Your task to perform on an android device: turn off data saver in the chrome app Image 0: 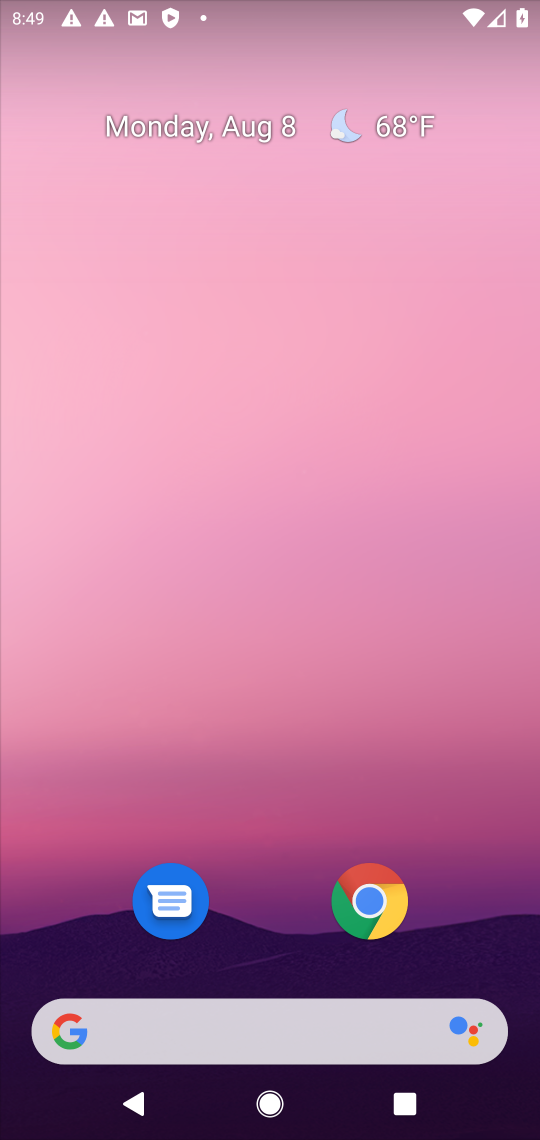
Step 0: click (354, 903)
Your task to perform on an android device: turn off data saver in the chrome app Image 1: 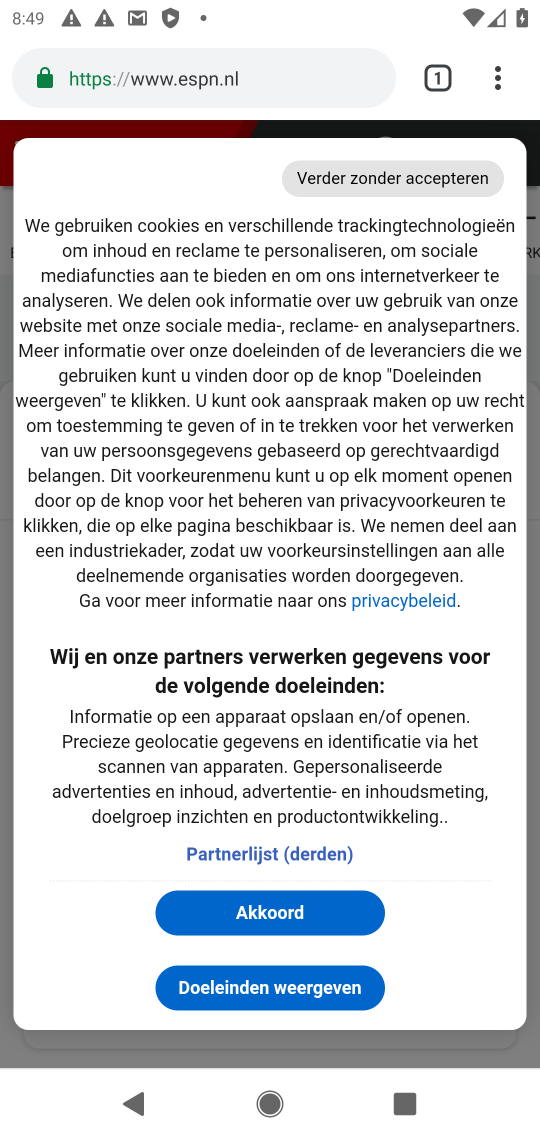
Step 1: click (163, 91)
Your task to perform on an android device: turn off data saver in the chrome app Image 2: 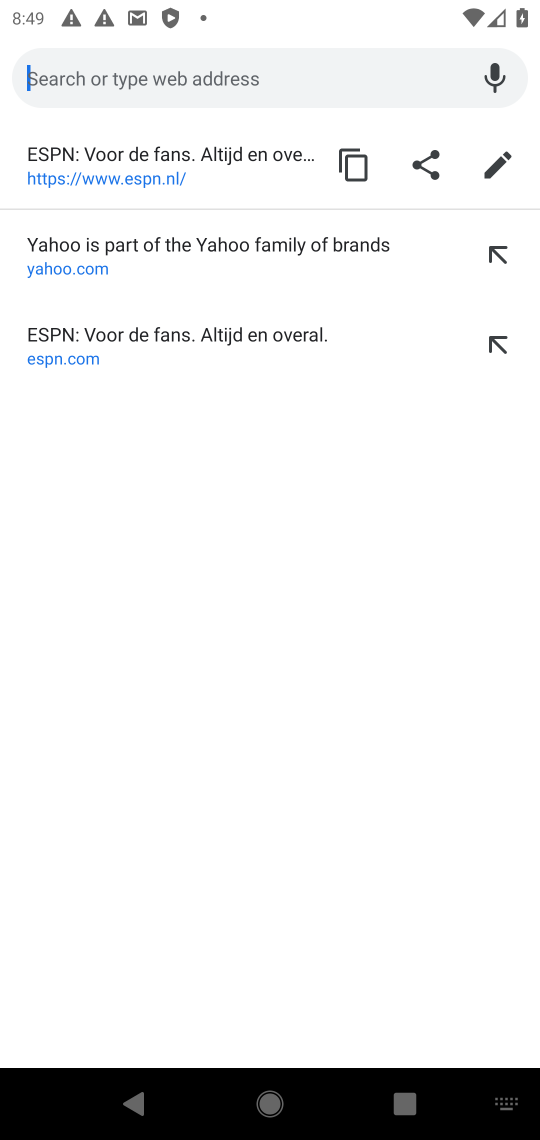
Step 2: press back button
Your task to perform on an android device: turn off data saver in the chrome app Image 3: 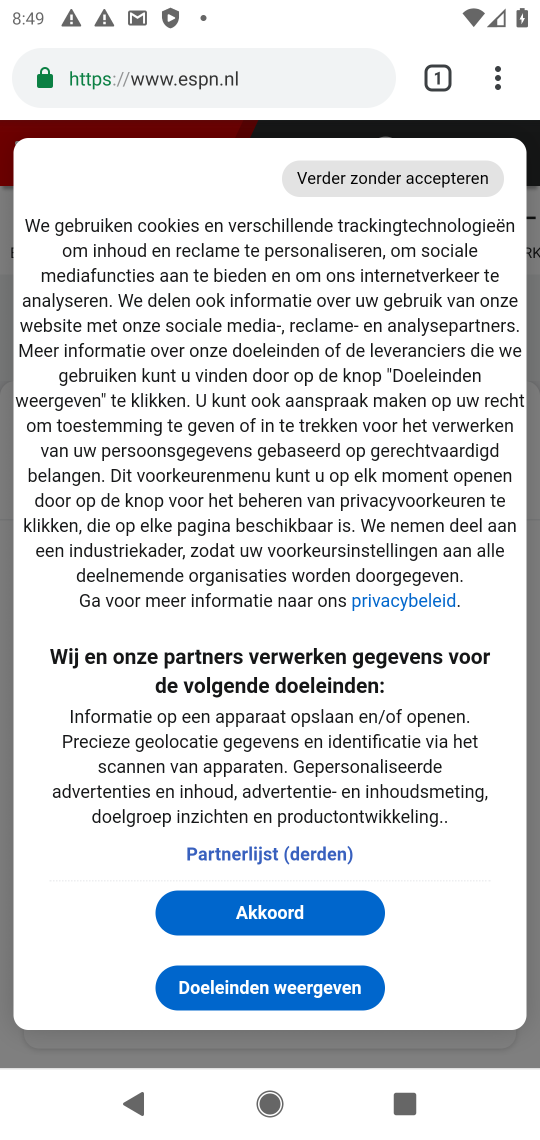
Step 3: click (489, 77)
Your task to perform on an android device: turn off data saver in the chrome app Image 4: 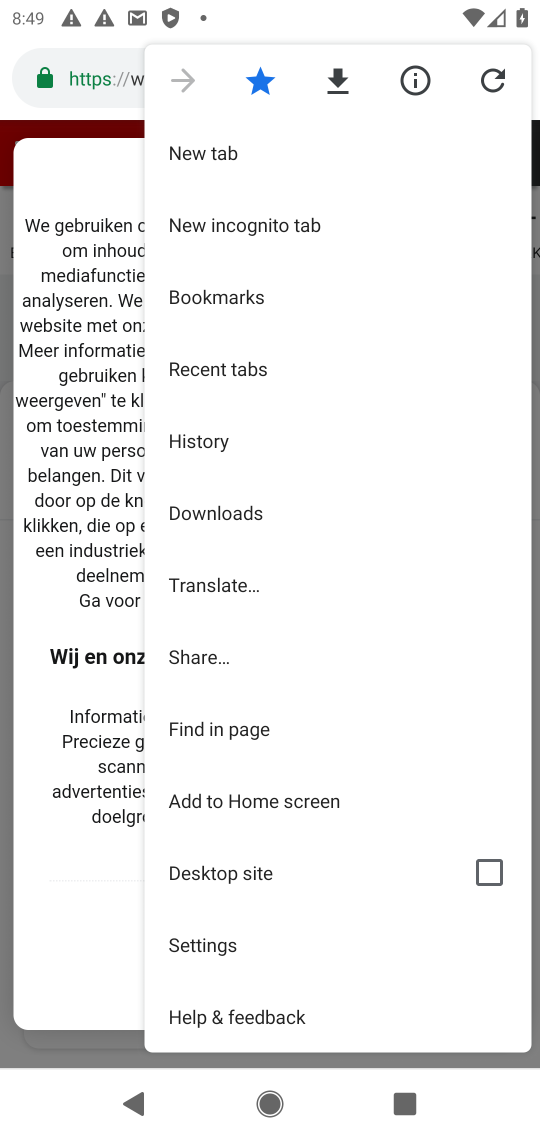
Step 4: click (212, 945)
Your task to perform on an android device: turn off data saver in the chrome app Image 5: 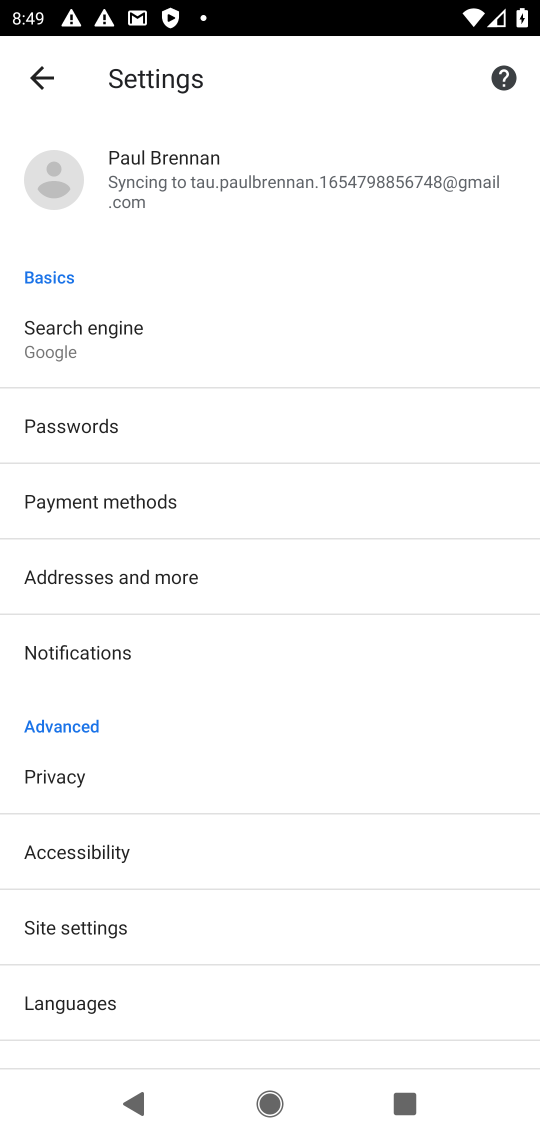
Step 5: click (85, 927)
Your task to perform on an android device: turn off data saver in the chrome app Image 6: 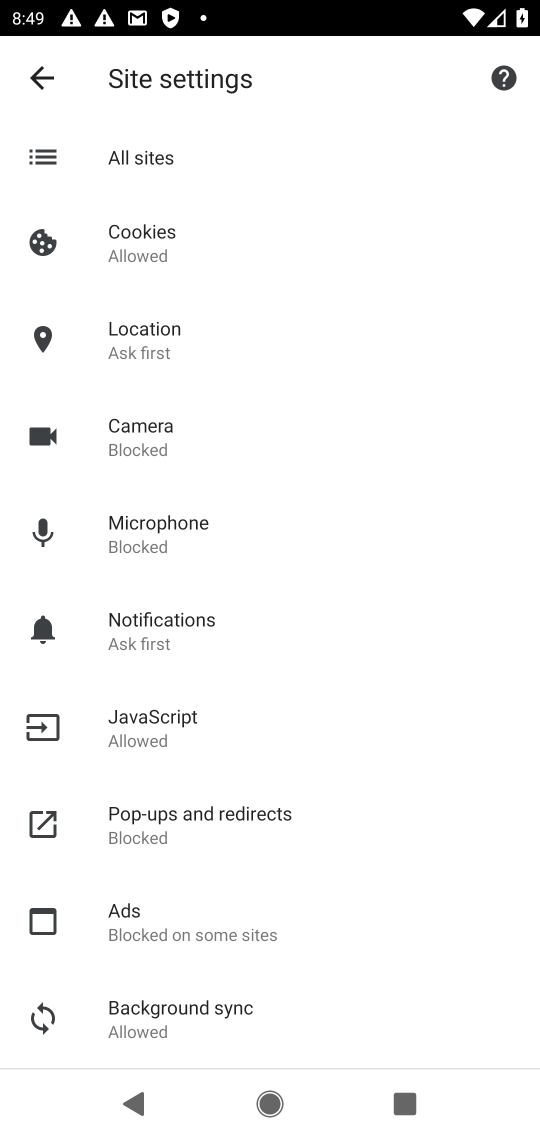
Step 6: press back button
Your task to perform on an android device: turn off data saver in the chrome app Image 7: 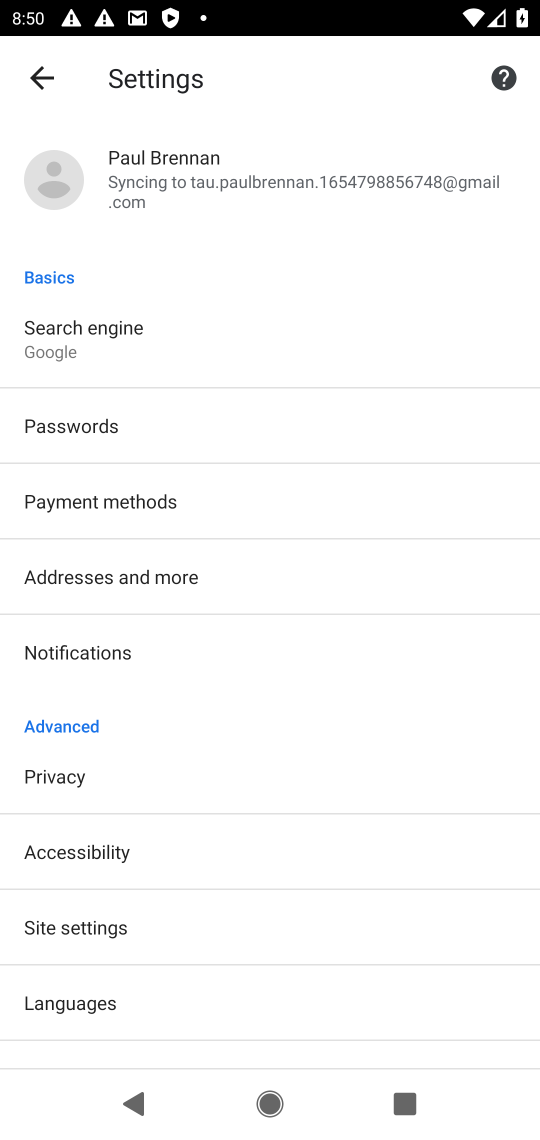
Step 7: click (252, 554)
Your task to perform on an android device: turn off data saver in the chrome app Image 8: 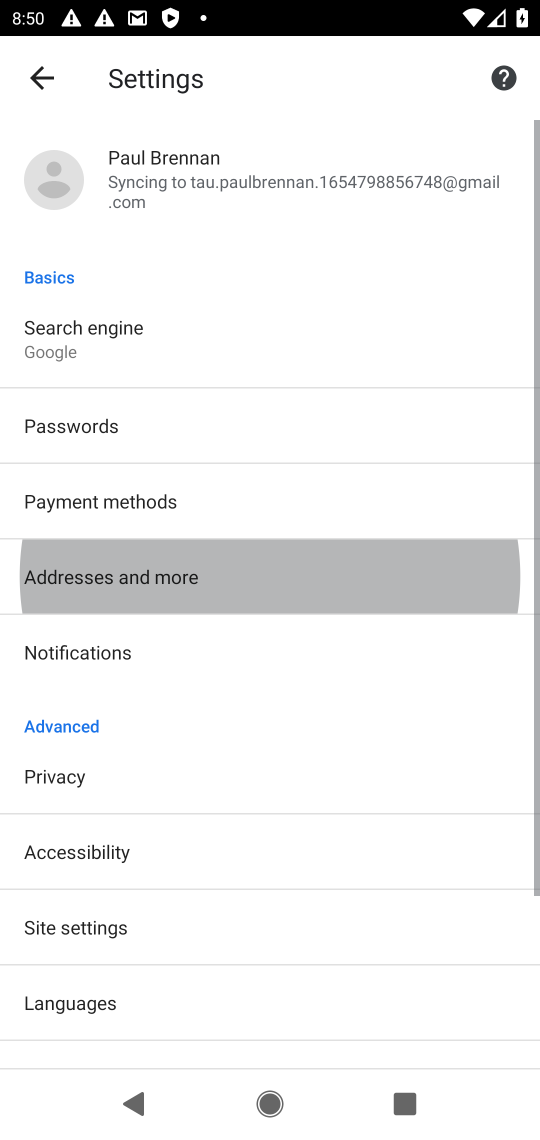
Step 8: drag from (129, 961) to (118, 531)
Your task to perform on an android device: turn off data saver in the chrome app Image 9: 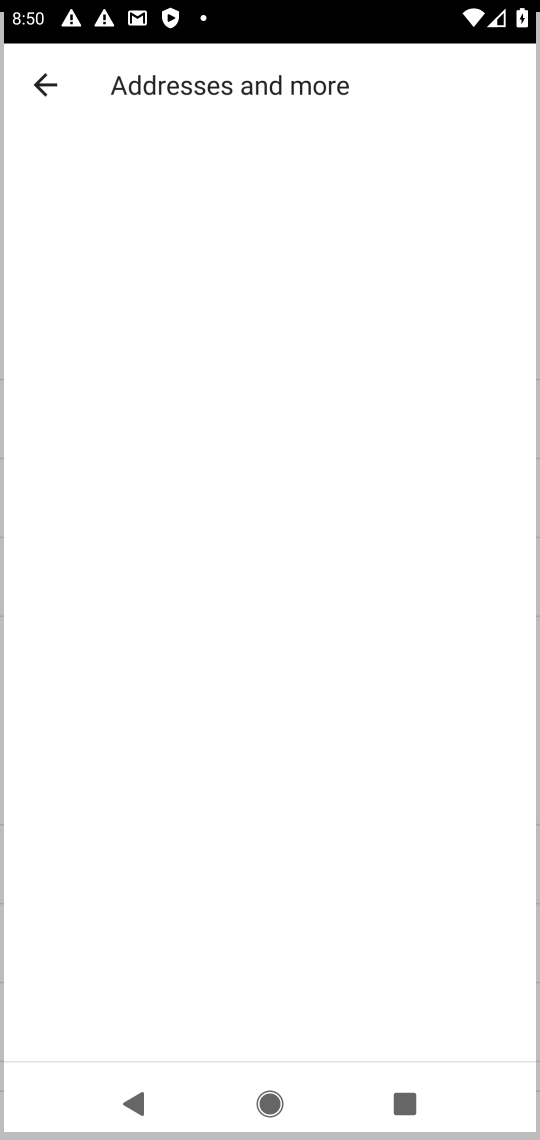
Step 9: click (251, 558)
Your task to perform on an android device: turn off data saver in the chrome app Image 10: 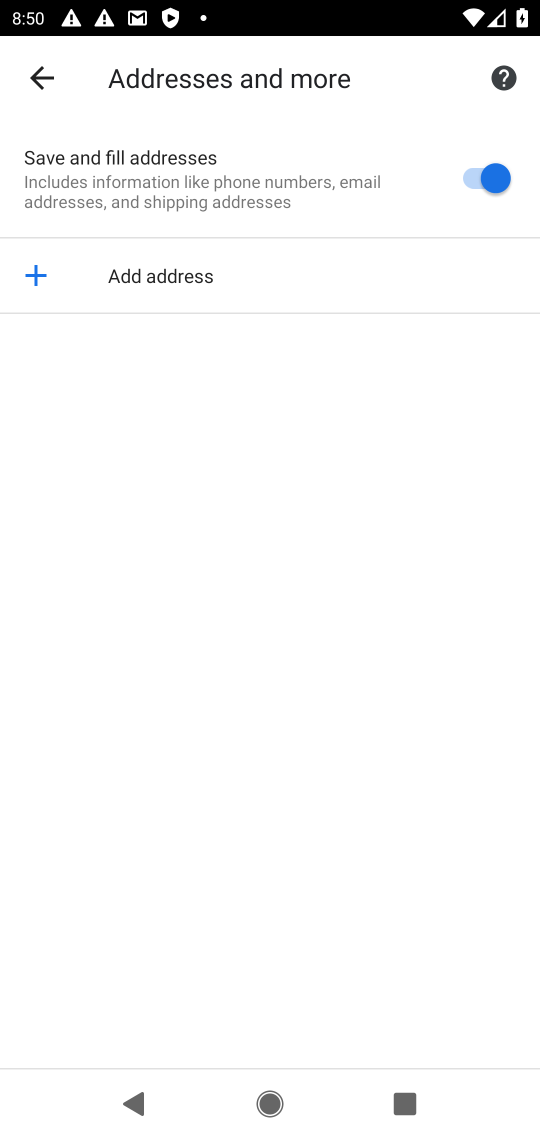
Step 10: press back button
Your task to perform on an android device: turn off data saver in the chrome app Image 11: 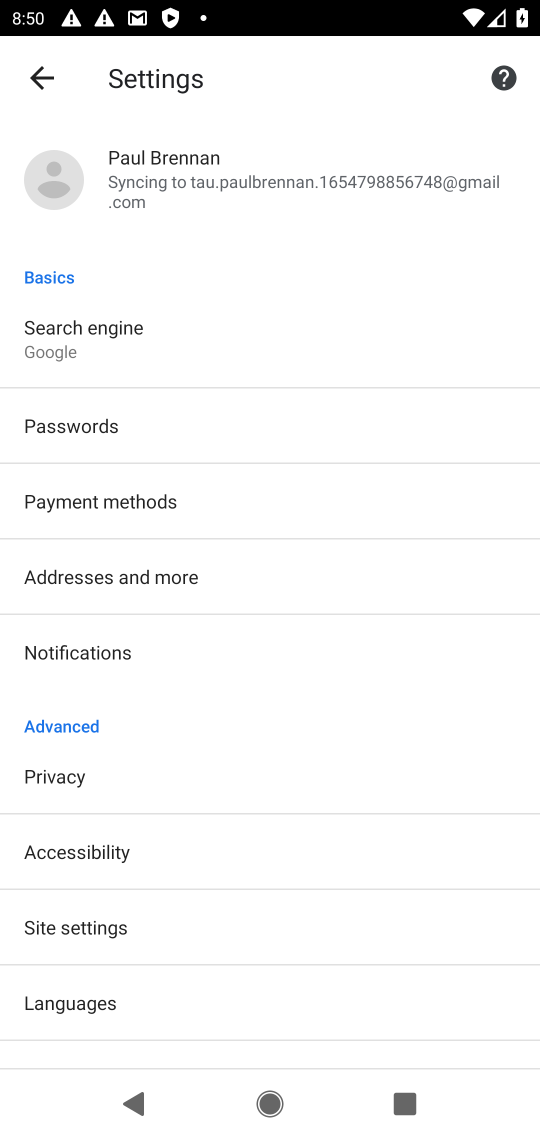
Step 11: drag from (374, 977) to (349, 530)
Your task to perform on an android device: turn off data saver in the chrome app Image 12: 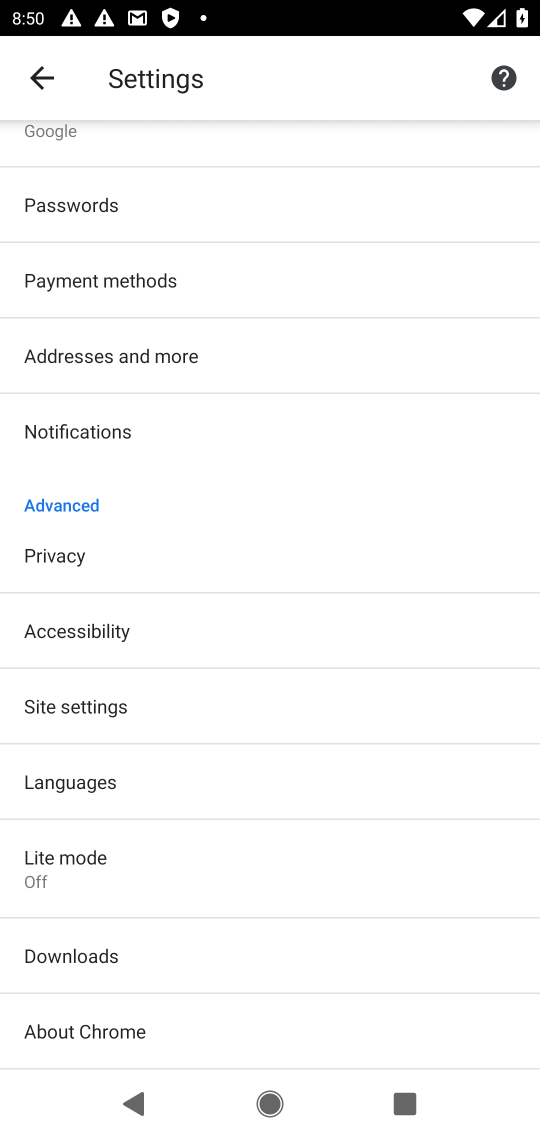
Step 12: click (63, 861)
Your task to perform on an android device: turn off data saver in the chrome app Image 13: 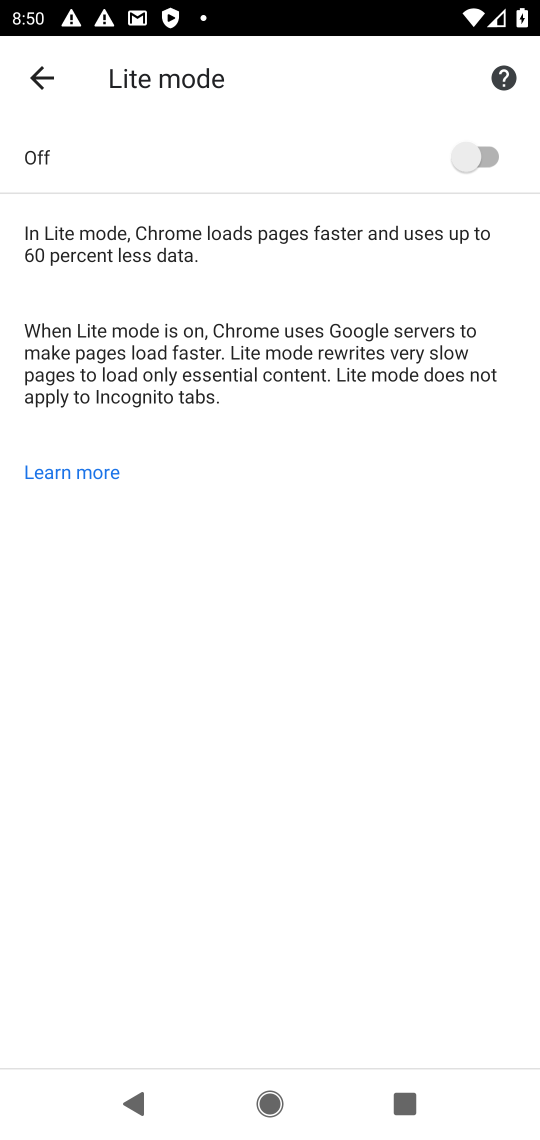
Step 13: task complete